Your task to perform on an android device: see tabs open on other devices in the chrome app Image 0: 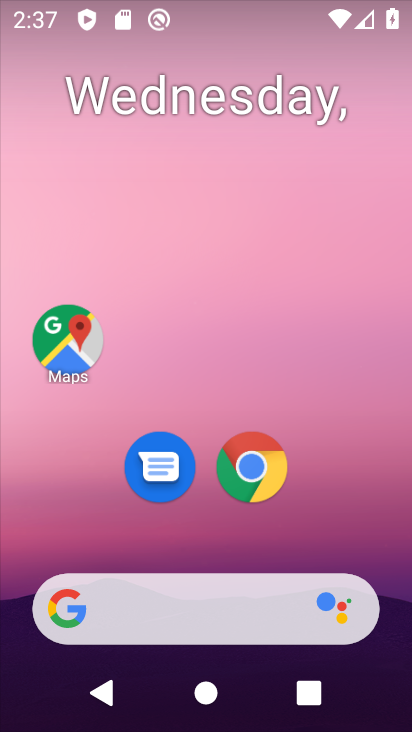
Step 0: click (248, 460)
Your task to perform on an android device: see tabs open on other devices in the chrome app Image 1: 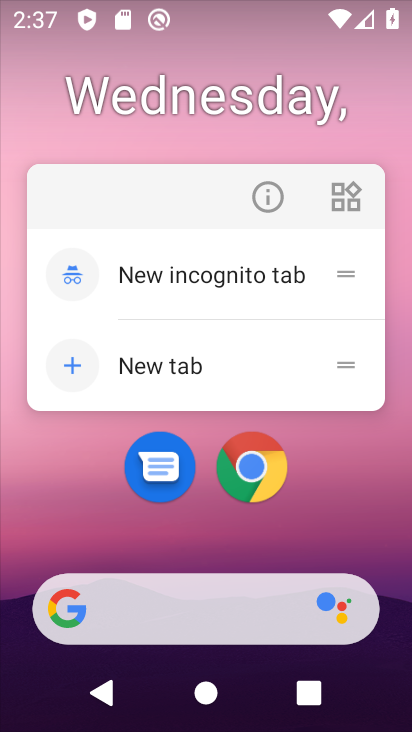
Step 1: click (264, 488)
Your task to perform on an android device: see tabs open on other devices in the chrome app Image 2: 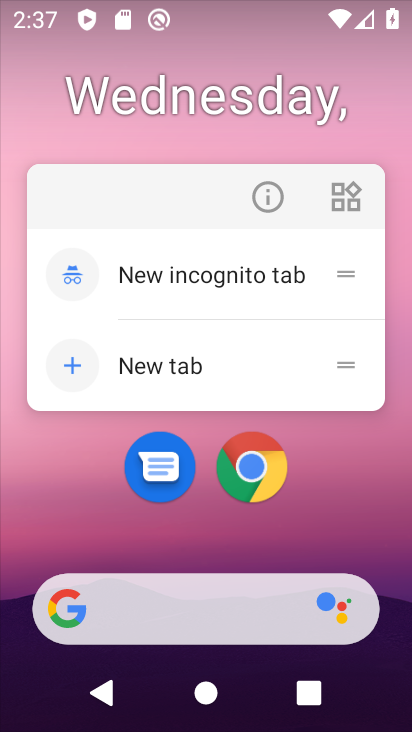
Step 2: click (254, 470)
Your task to perform on an android device: see tabs open on other devices in the chrome app Image 3: 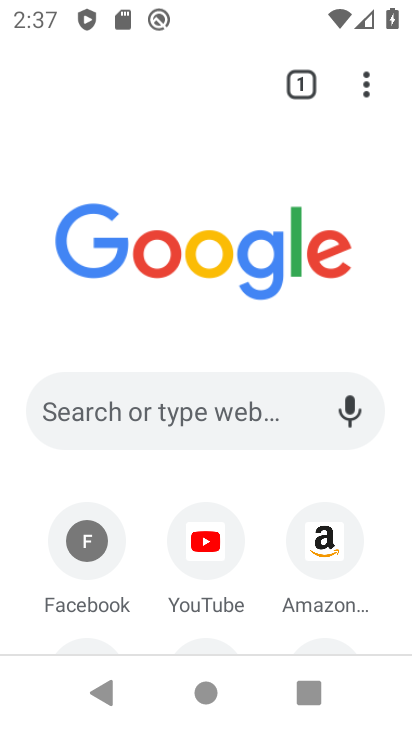
Step 3: task complete